Your task to perform on an android device: Open ESPN.com Image 0: 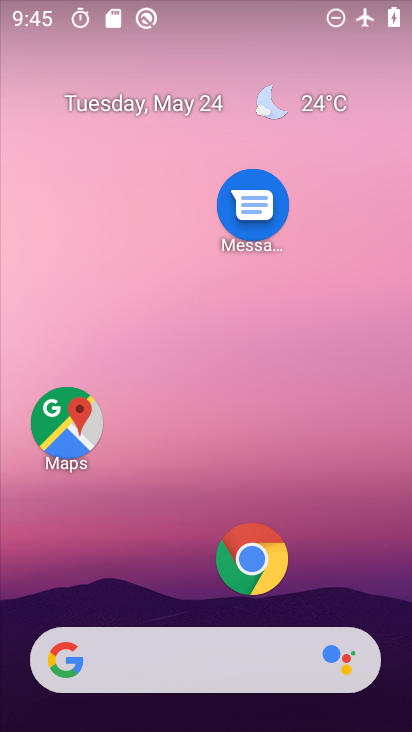
Step 0: click (238, 563)
Your task to perform on an android device: Open ESPN.com Image 1: 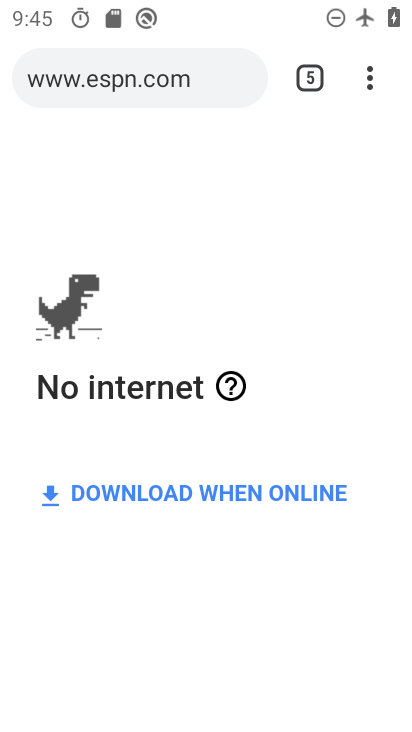
Step 1: click (305, 57)
Your task to perform on an android device: Open ESPN.com Image 2: 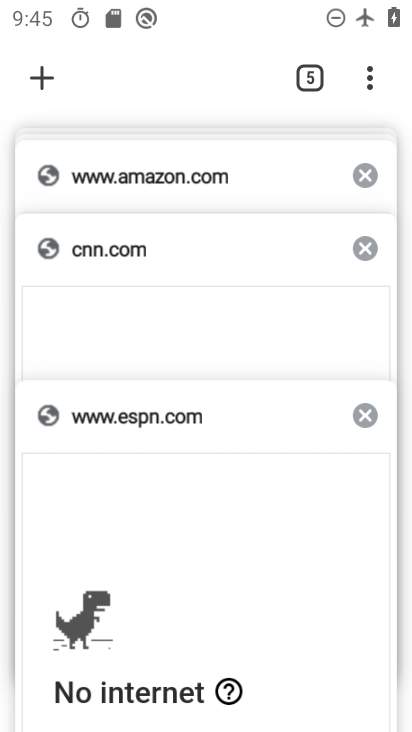
Step 2: click (160, 443)
Your task to perform on an android device: Open ESPN.com Image 3: 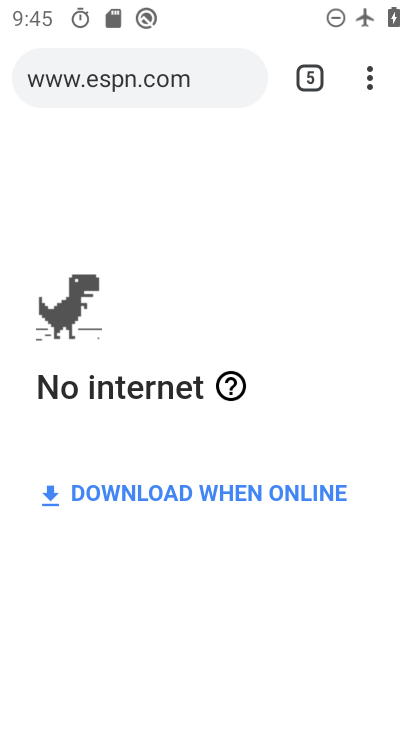
Step 3: task complete